Your task to perform on an android device: What's on my calendar today? Image 0: 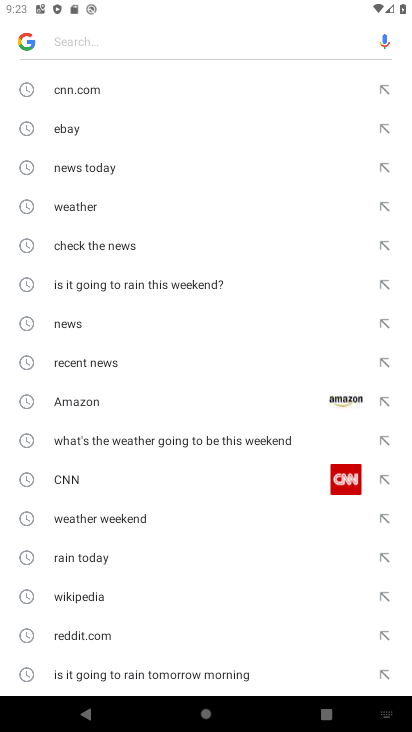
Step 0: press home button
Your task to perform on an android device: What's on my calendar today? Image 1: 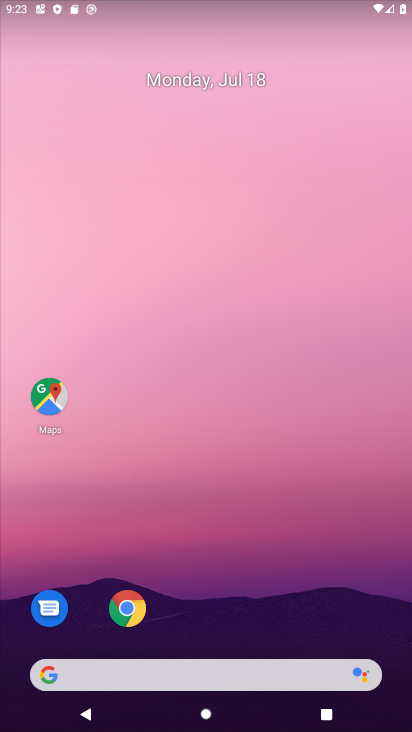
Step 1: drag from (223, 621) to (219, 2)
Your task to perform on an android device: What's on my calendar today? Image 2: 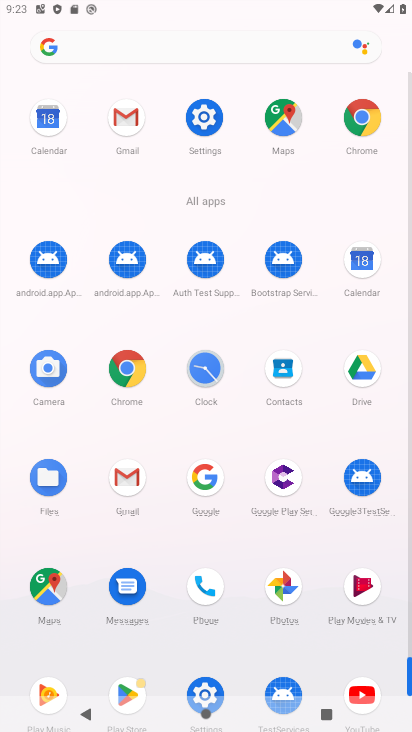
Step 2: click (370, 283)
Your task to perform on an android device: What's on my calendar today? Image 3: 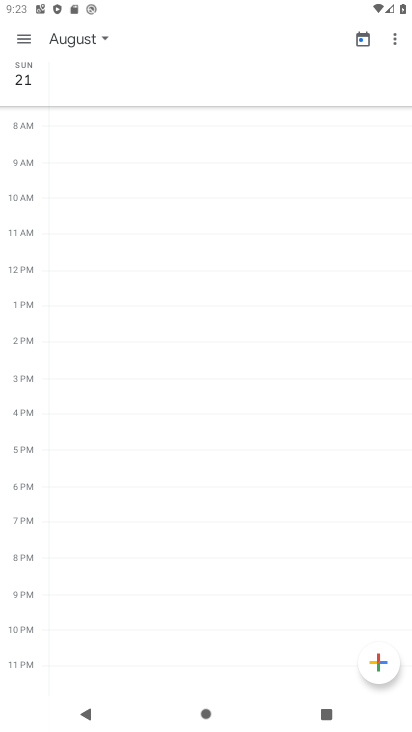
Step 3: click (58, 37)
Your task to perform on an android device: What's on my calendar today? Image 4: 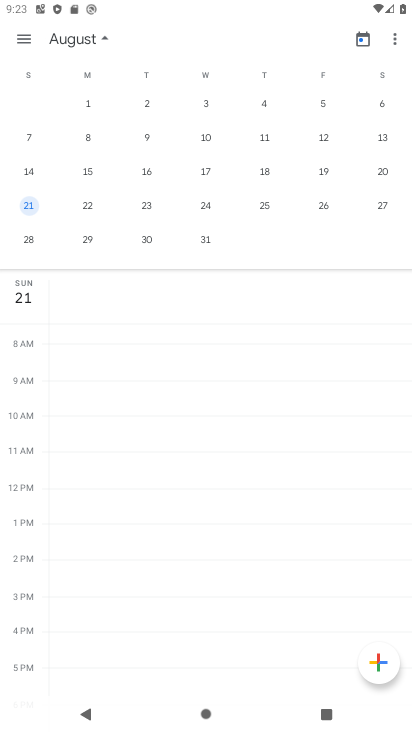
Step 4: drag from (72, 156) to (409, 222)
Your task to perform on an android device: What's on my calendar today? Image 5: 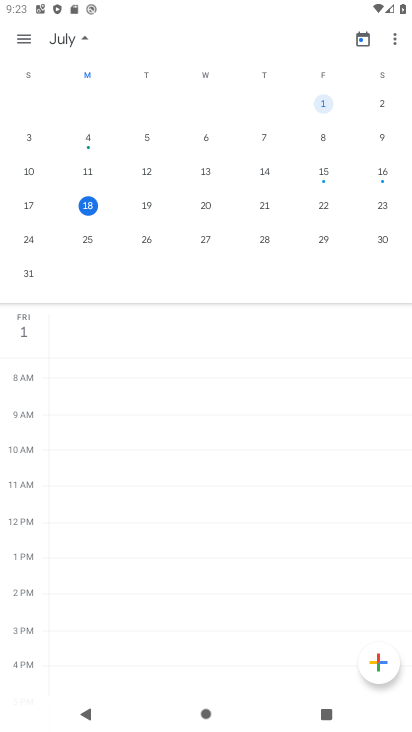
Step 5: click (93, 208)
Your task to perform on an android device: What's on my calendar today? Image 6: 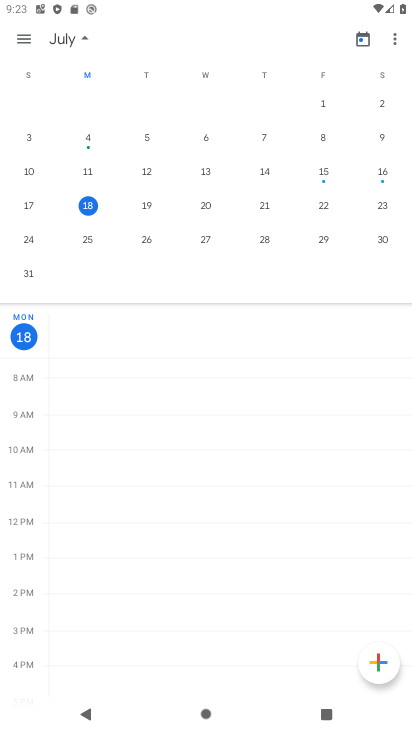
Step 6: click (24, 39)
Your task to perform on an android device: What's on my calendar today? Image 7: 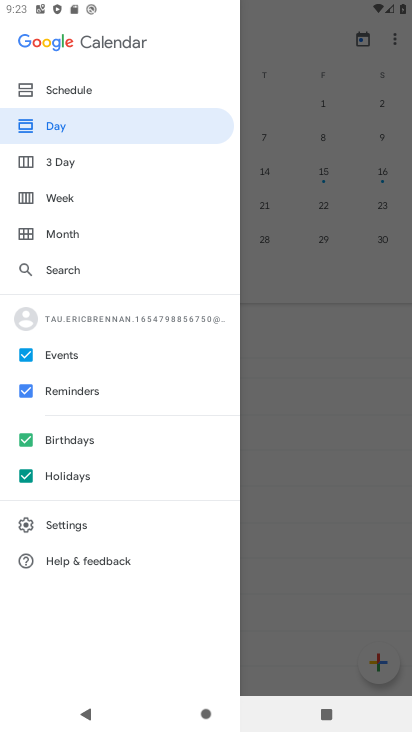
Step 7: click (69, 127)
Your task to perform on an android device: What's on my calendar today? Image 8: 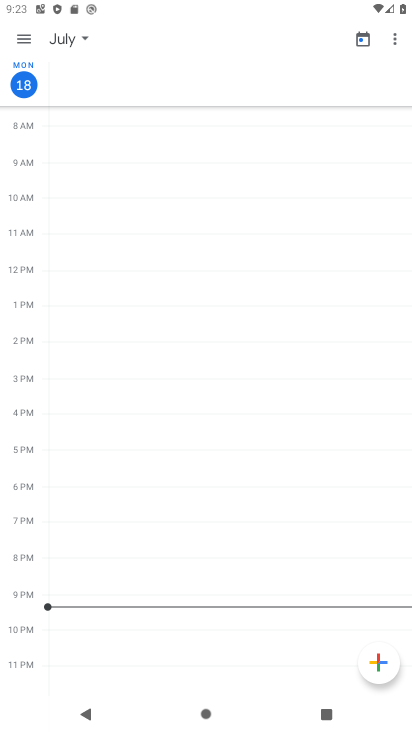
Step 8: task complete